Your task to perform on an android device: toggle pop-ups in chrome Image 0: 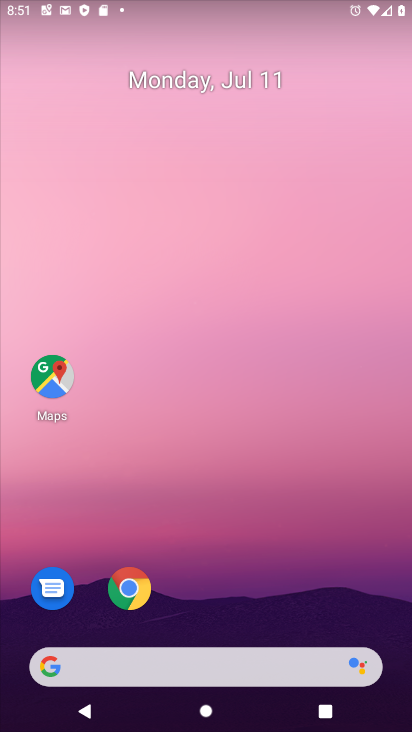
Step 0: click (125, 592)
Your task to perform on an android device: toggle pop-ups in chrome Image 1: 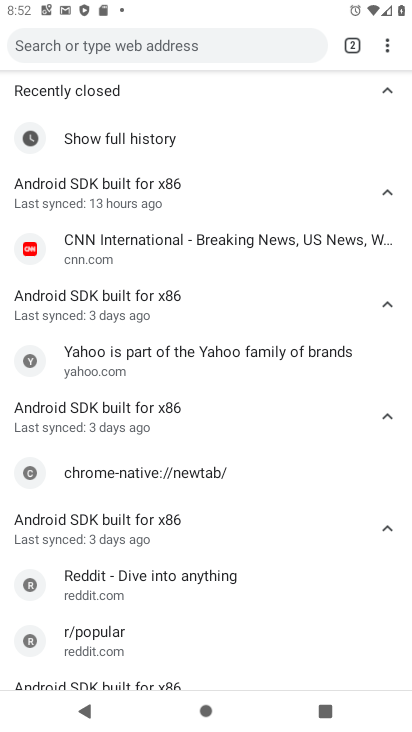
Step 1: drag from (387, 45) to (260, 422)
Your task to perform on an android device: toggle pop-ups in chrome Image 2: 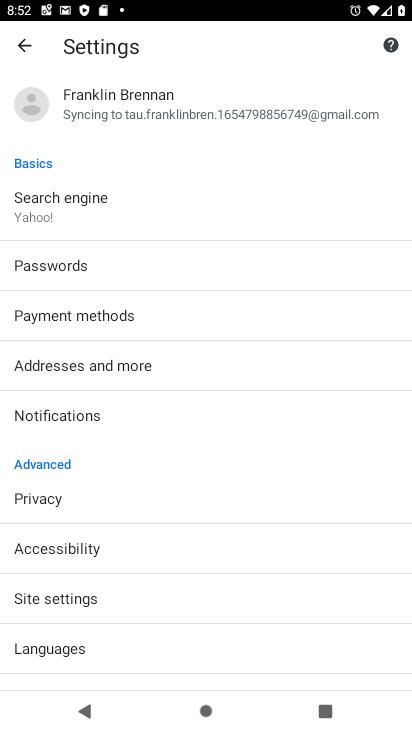
Step 2: click (82, 595)
Your task to perform on an android device: toggle pop-ups in chrome Image 3: 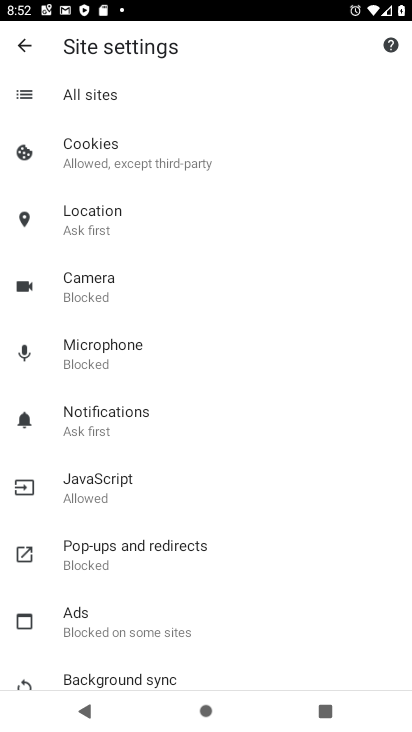
Step 3: click (137, 545)
Your task to perform on an android device: toggle pop-ups in chrome Image 4: 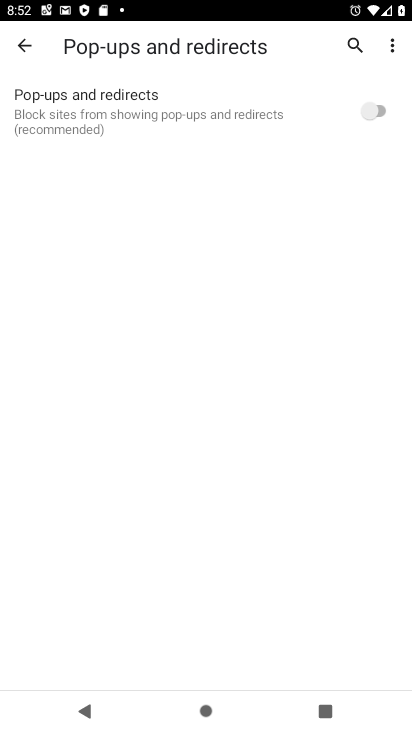
Step 4: click (383, 105)
Your task to perform on an android device: toggle pop-ups in chrome Image 5: 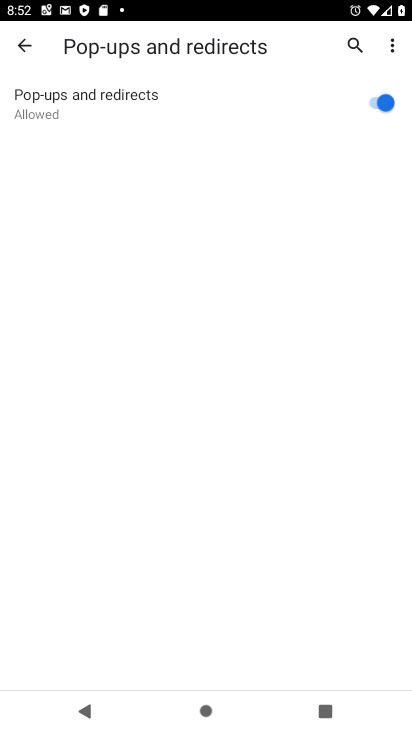
Step 5: task complete